Your task to perform on an android device: Add bose soundlink mini to the cart on bestbuy.com Image 0: 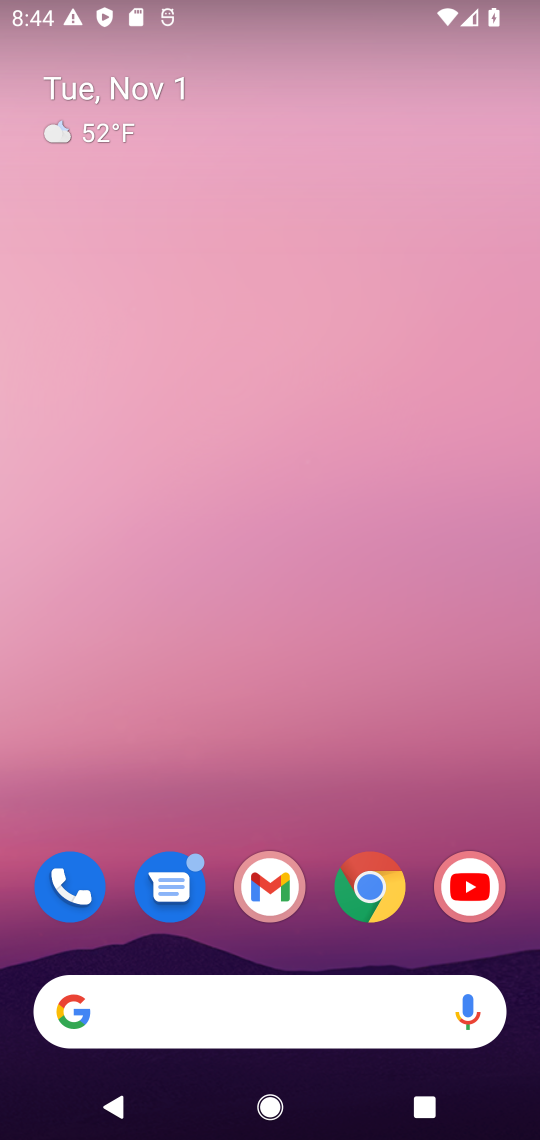
Step 0: drag from (150, 927) to (214, 231)
Your task to perform on an android device: Add bose soundlink mini to the cart on bestbuy.com Image 1: 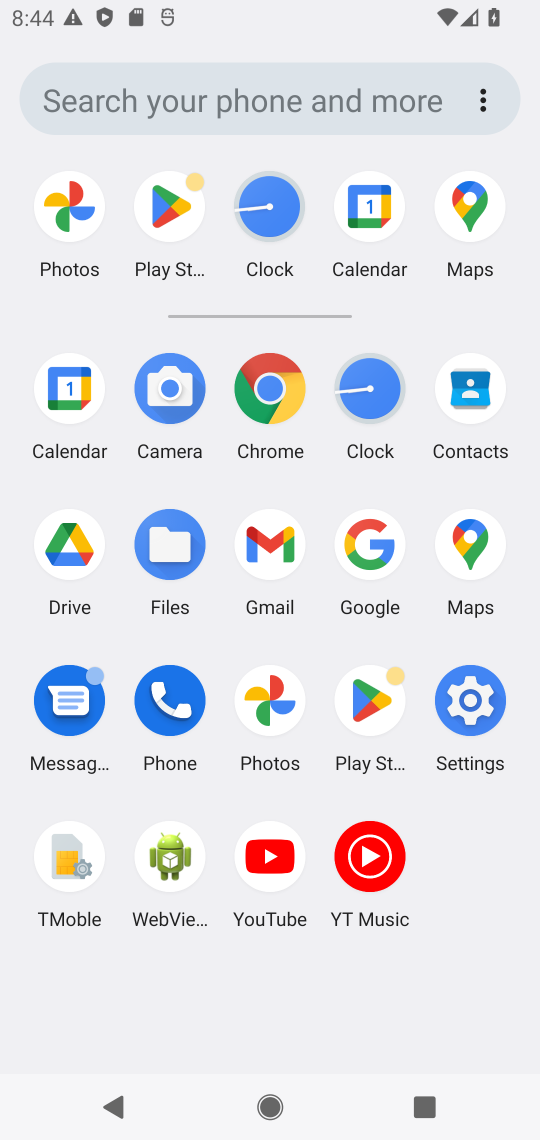
Step 1: click (371, 525)
Your task to perform on an android device: Add bose soundlink mini to the cart on bestbuy.com Image 2: 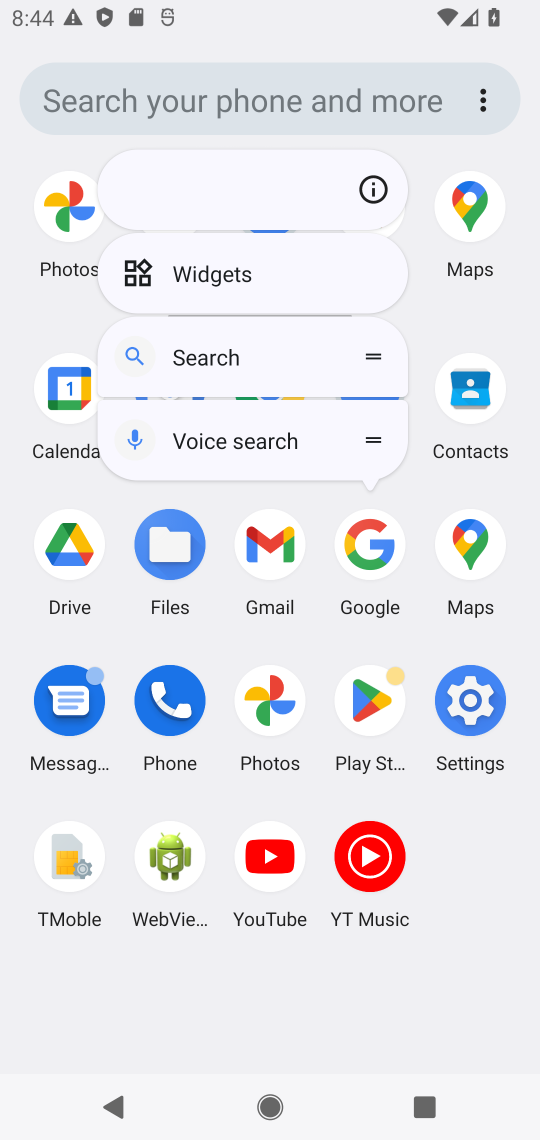
Step 2: click (376, 525)
Your task to perform on an android device: Add bose soundlink mini to the cart on bestbuy.com Image 3: 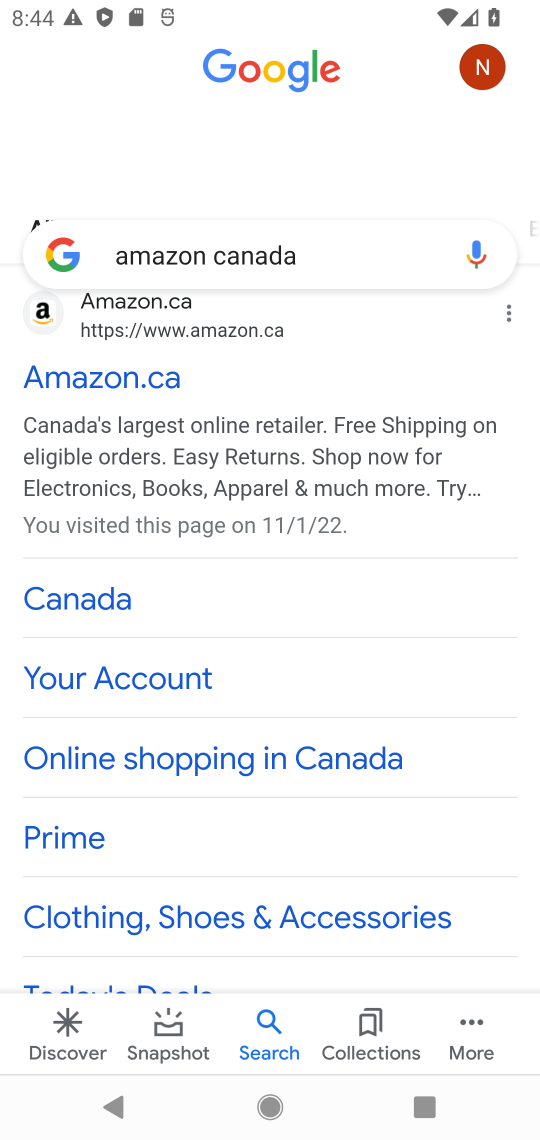
Step 3: click (247, 254)
Your task to perform on an android device: Add bose soundlink mini to the cart on bestbuy.com Image 4: 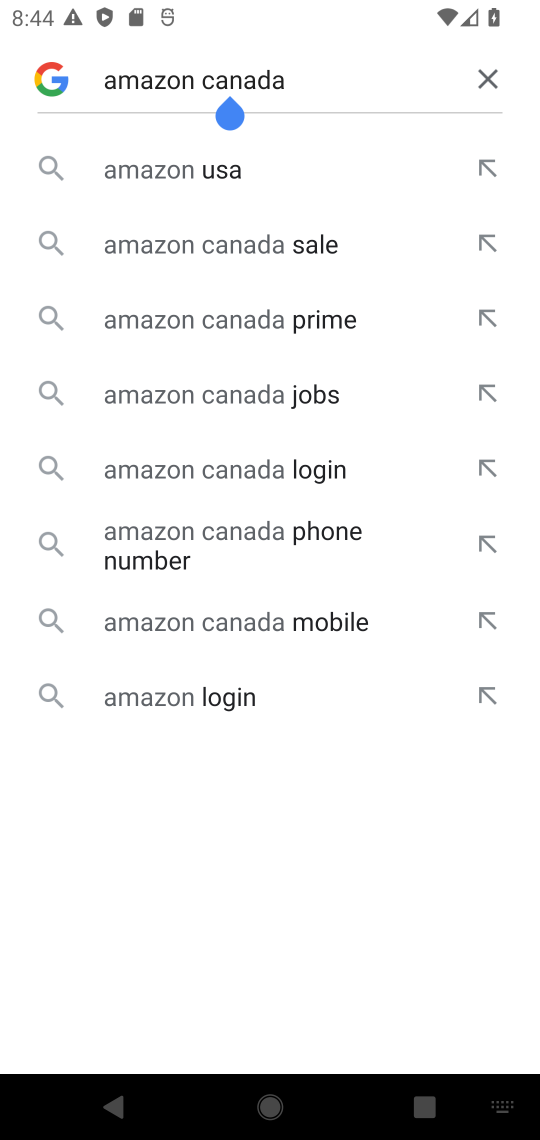
Step 4: click (486, 76)
Your task to perform on an android device: Add bose soundlink mini to the cart on bestbuy.com Image 5: 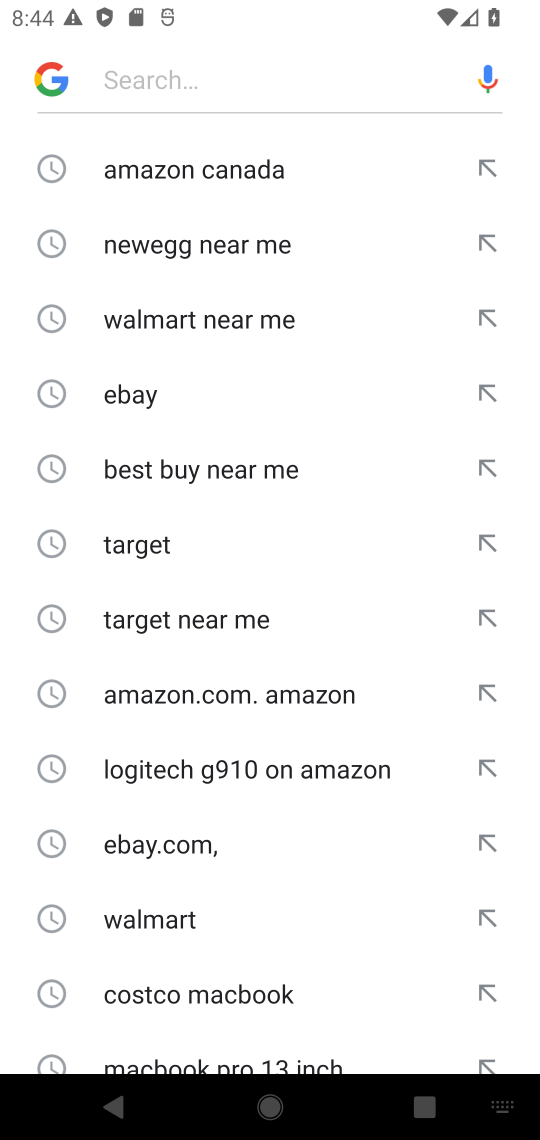
Step 5: click (200, 84)
Your task to perform on an android device: Add bose soundlink mini to the cart on bestbuy.com Image 6: 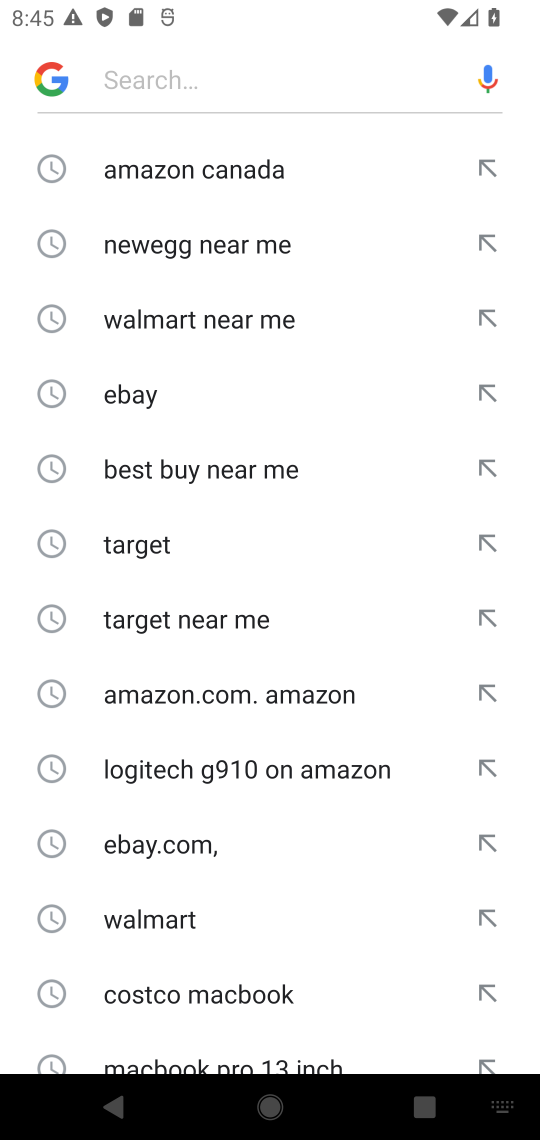
Step 6: type "bestbuy "
Your task to perform on an android device: Add bose soundlink mini to the cart on bestbuy.com Image 7: 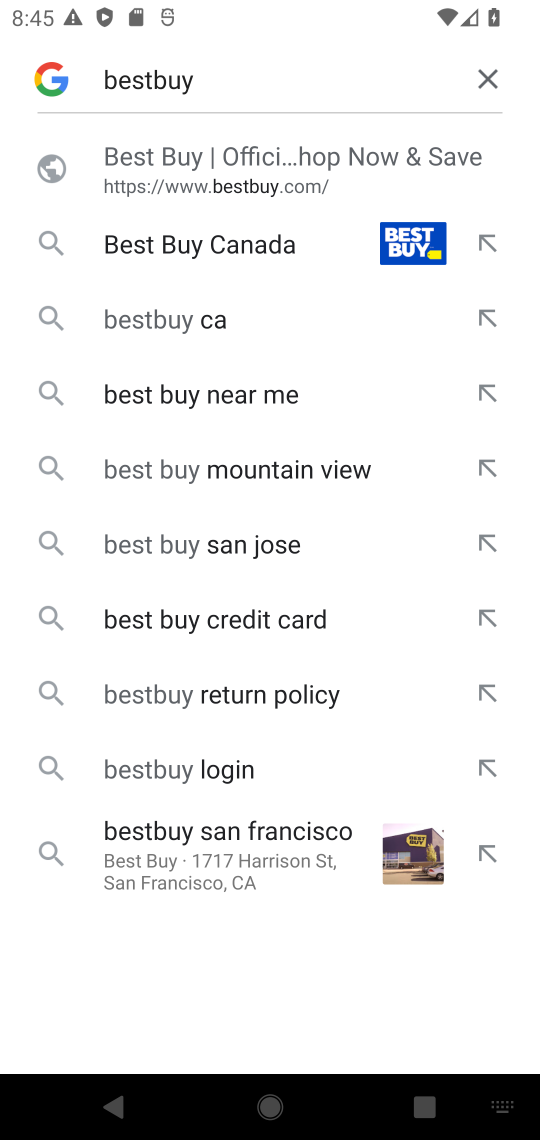
Step 7: click (229, 148)
Your task to perform on an android device: Add bose soundlink mini to the cart on bestbuy.com Image 8: 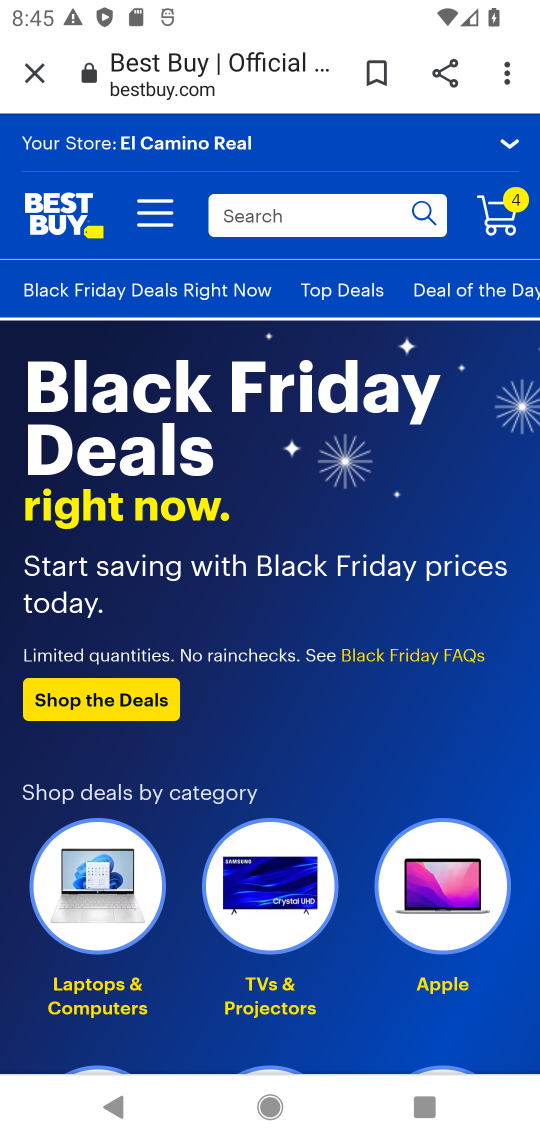
Step 8: click (244, 199)
Your task to perform on an android device: Add bose soundlink mini to the cart on bestbuy.com Image 9: 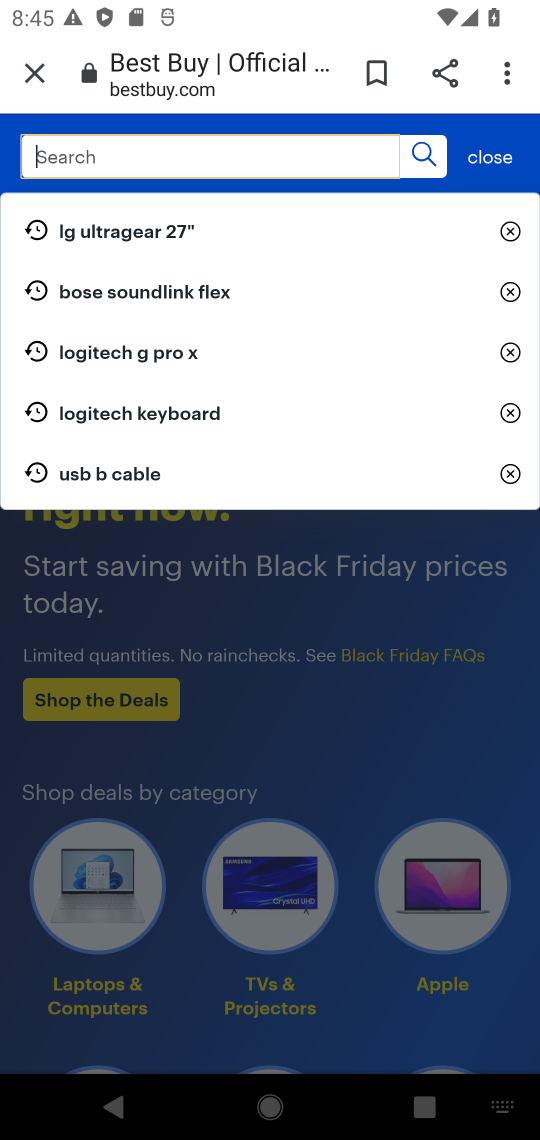
Step 9: click (256, 135)
Your task to perform on an android device: Add bose soundlink mini to the cart on bestbuy.com Image 10: 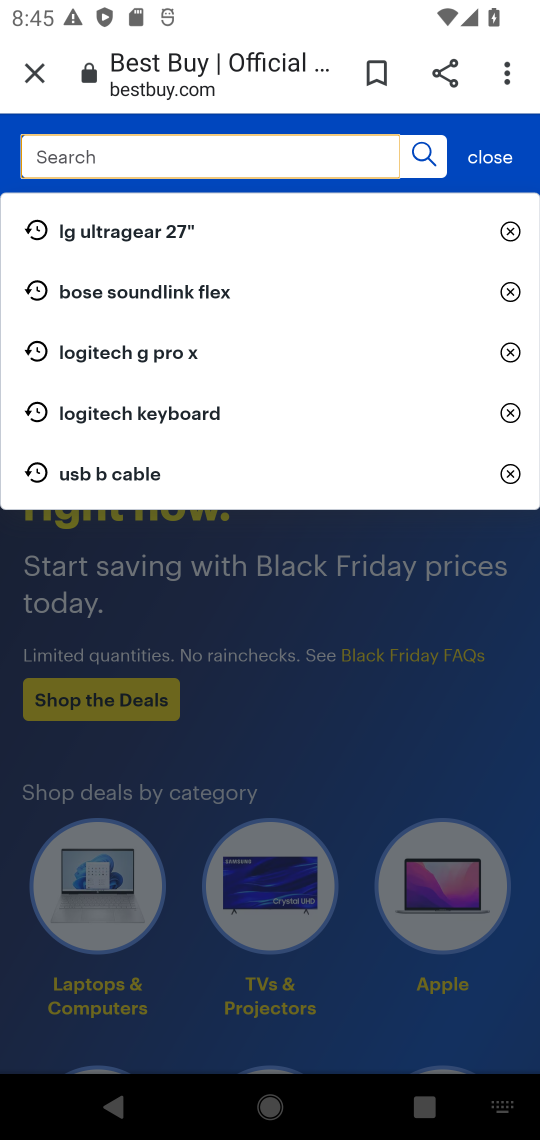
Step 10: click (250, 141)
Your task to perform on an android device: Add bose soundlink mini to the cart on bestbuy.com Image 11: 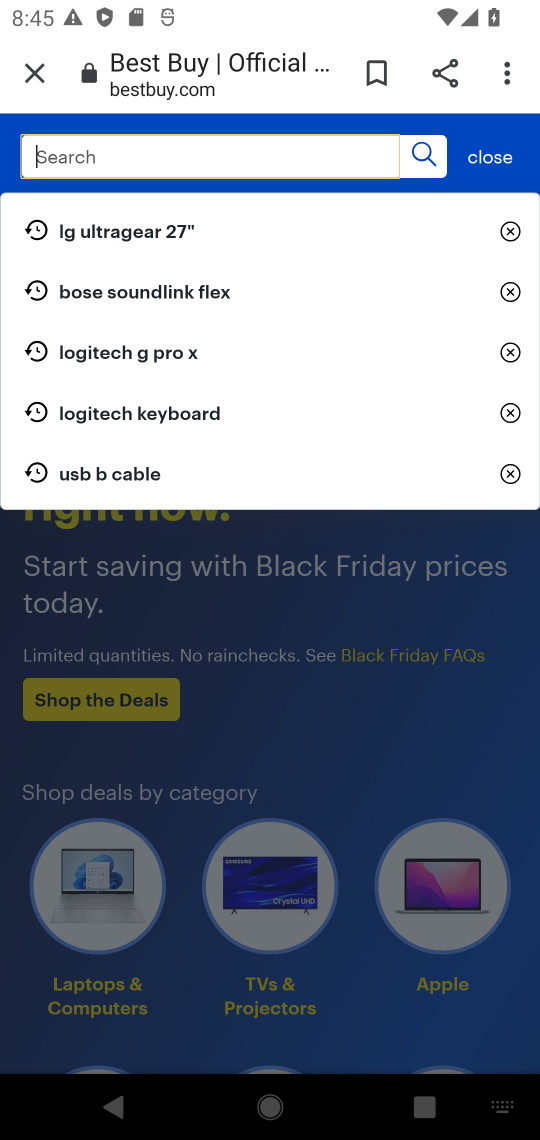
Step 11: click (250, 141)
Your task to perform on an android device: Add bose soundlink mini to the cart on bestbuy.com Image 12: 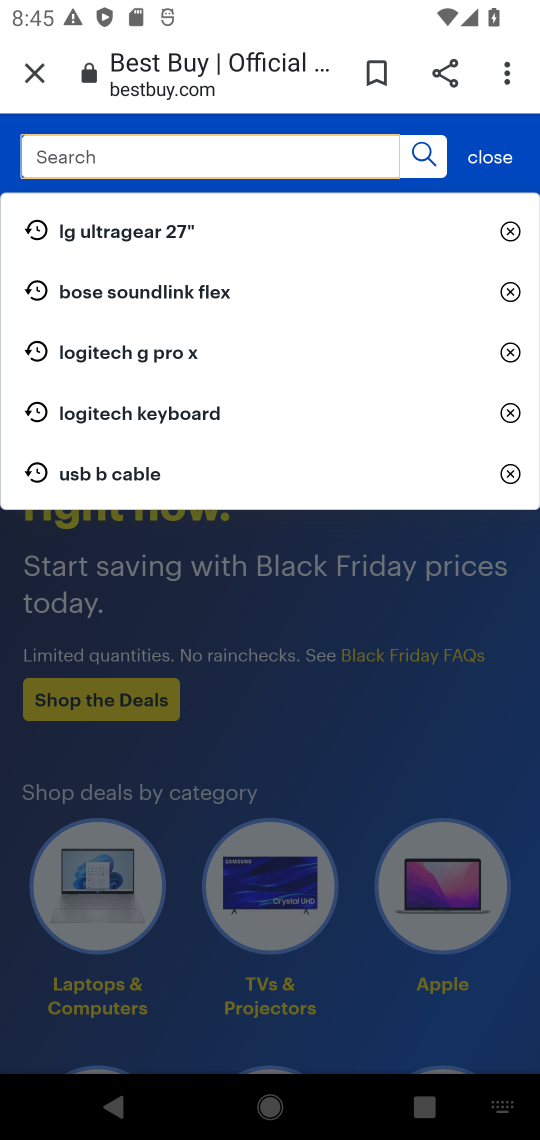
Step 12: type " bose soundlink mini  "
Your task to perform on an android device: Add bose soundlink mini to the cart on bestbuy.com Image 13: 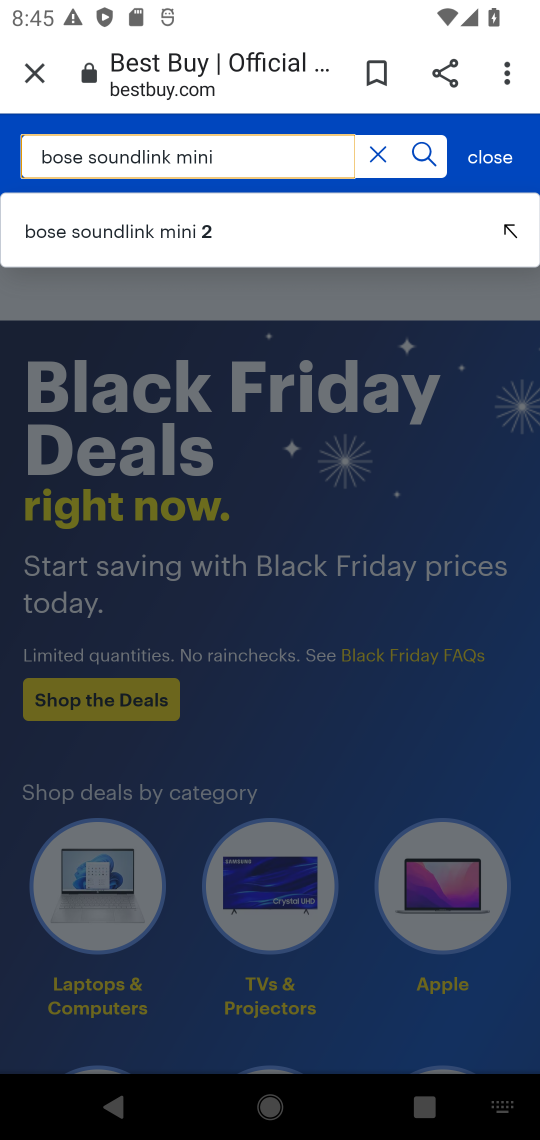
Step 13: click (151, 236)
Your task to perform on an android device: Add bose soundlink mini to the cart on bestbuy.com Image 14: 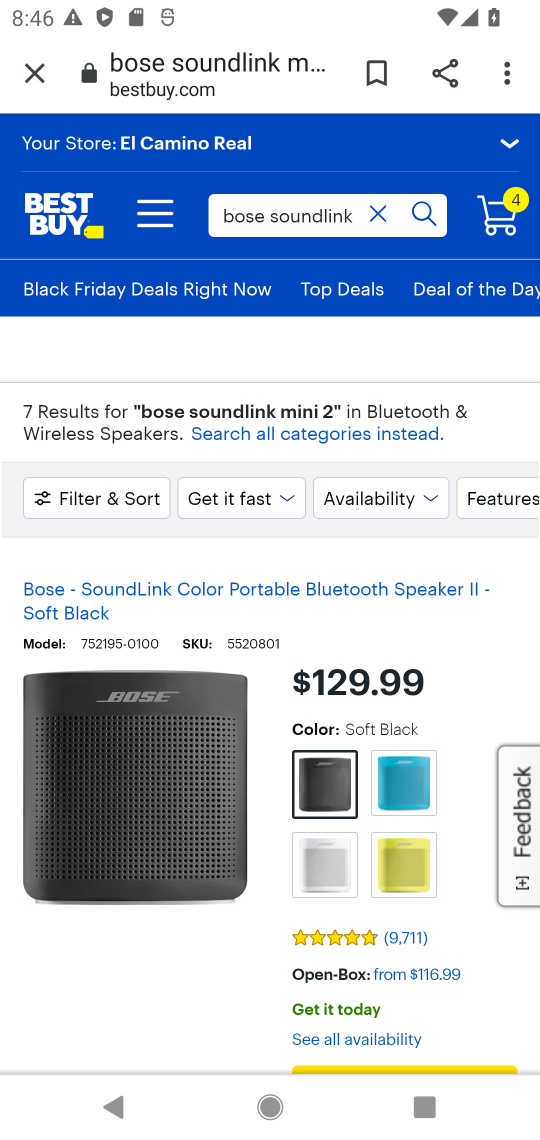
Step 14: drag from (449, 908) to (372, 348)
Your task to perform on an android device: Add bose soundlink mini to the cart on bestbuy.com Image 15: 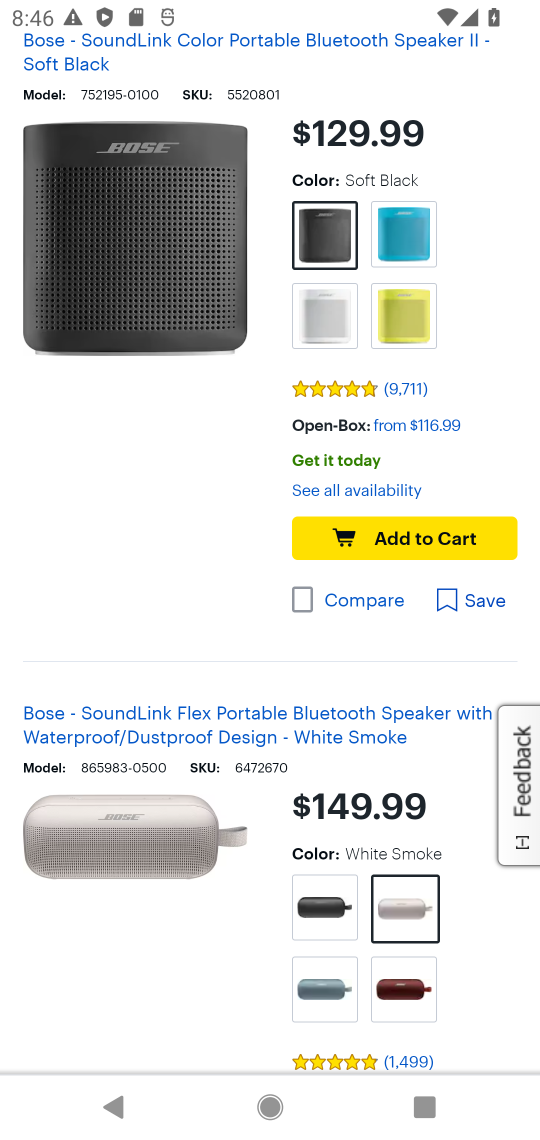
Step 15: click (364, 537)
Your task to perform on an android device: Add bose soundlink mini to the cart on bestbuy.com Image 16: 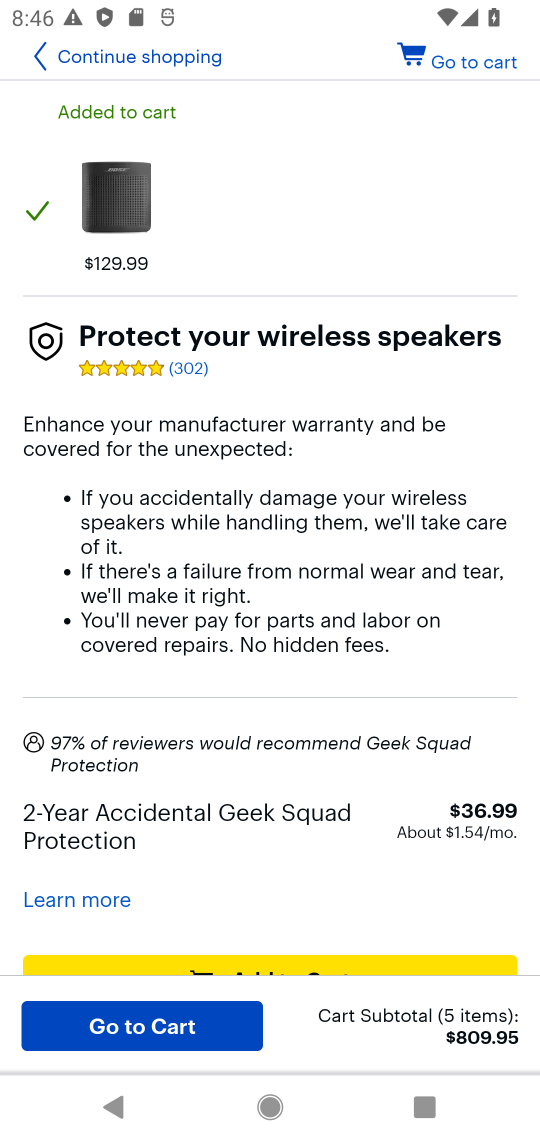
Step 16: drag from (290, 797) to (306, 318)
Your task to perform on an android device: Add bose soundlink mini to the cart on bestbuy.com Image 17: 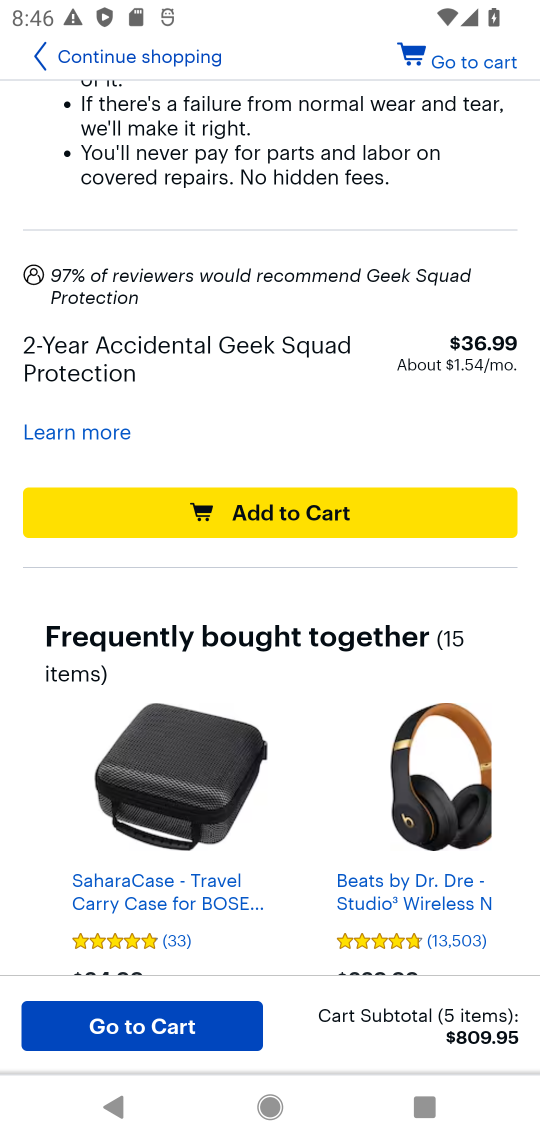
Step 17: click (348, 499)
Your task to perform on an android device: Add bose soundlink mini to the cart on bestbuy.com Image 18: 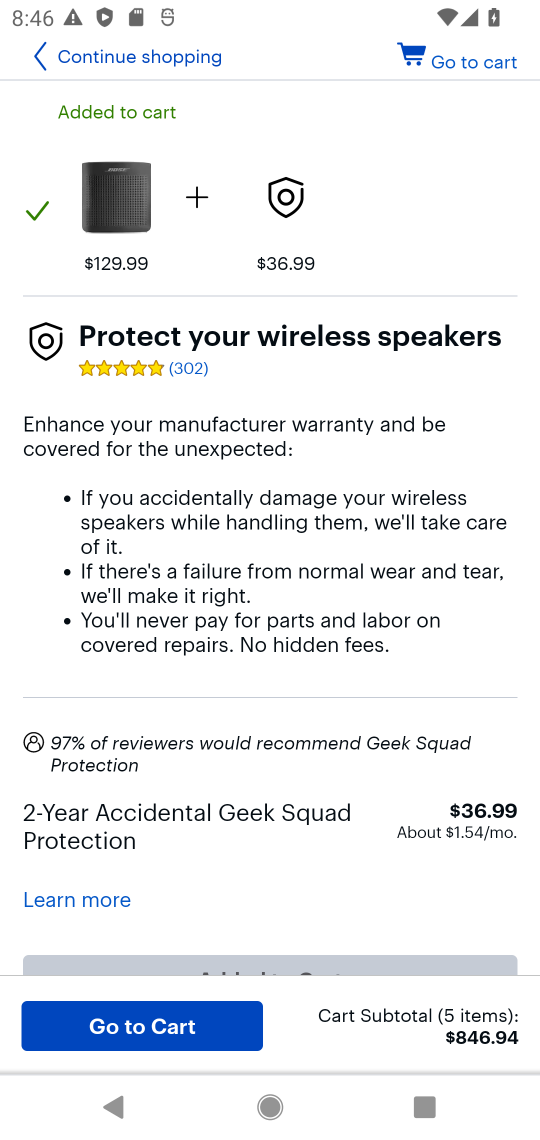
Step 18: task complete